Your task to perform on an android device: turn off smart reply in the gmail app Image 0: 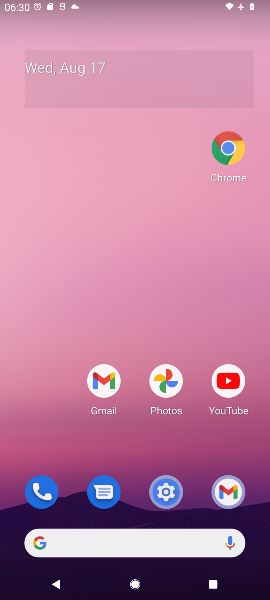
Step 0: press home button
Your task to perform on an android device: turn off smart reply in the gmail app Image 1: 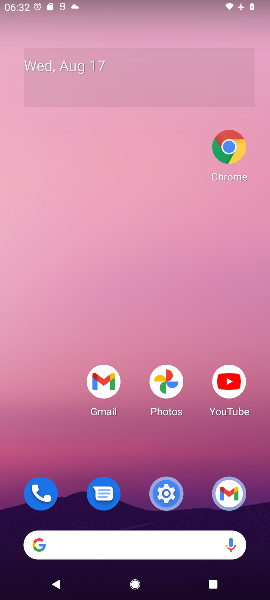
Step 1: click (56, 167)
Your task to perform on an android device: turn off smart reply in the gmail app Image 2: 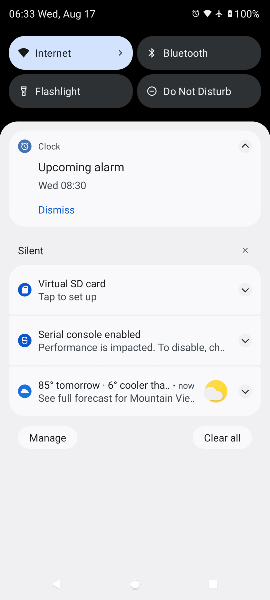
Step 2: press home button
Your task to perform on an android device: turn off smart reply in the gmail app Image 3: 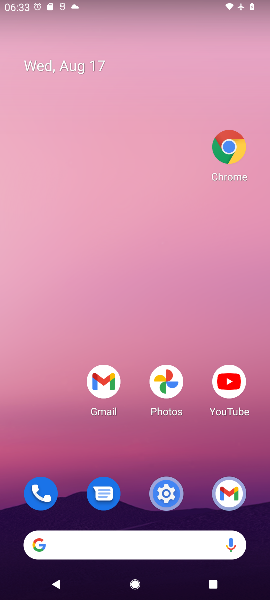
Step 3: click (99, 385)
Your task to perform on an android device: turn off smart reply in the gmail app Image 4: 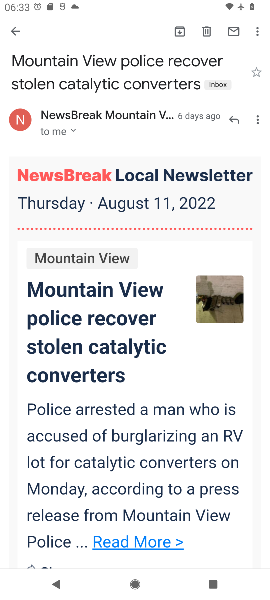
Step 4: press back button
Your task to perform on an android device: turn off smart reply in the gmail app Image 5: 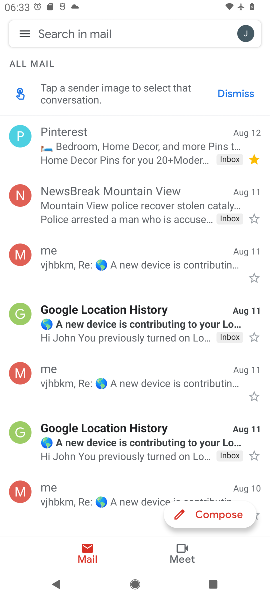
Step 5: click (29, 27)
Your task to perform on an android device: turn off smart reply in the gmail app Image 6: 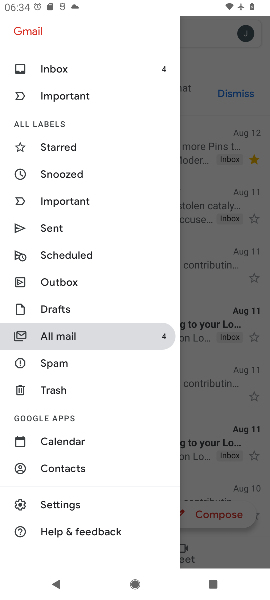
Step 6: click (55, 505)
Your task to perform on an android device: turn off smart reply in the gmail app Image 7: 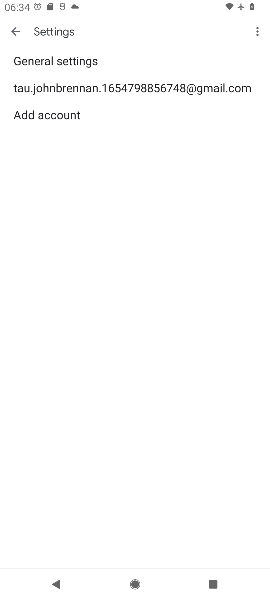
Step 7: click (118, 90)
Your task to perform on an android device: turn off smart reply in the gmail app Image 8: 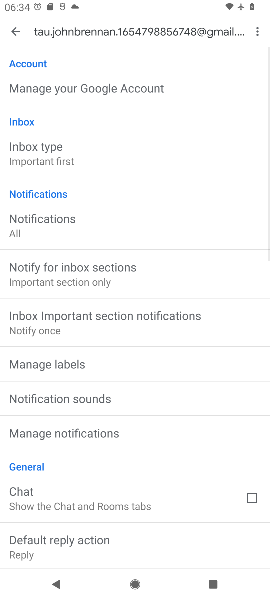
Step 8: task complete